Your task to perform on an android device: Search for Italian restaurants on Maps Image 0: 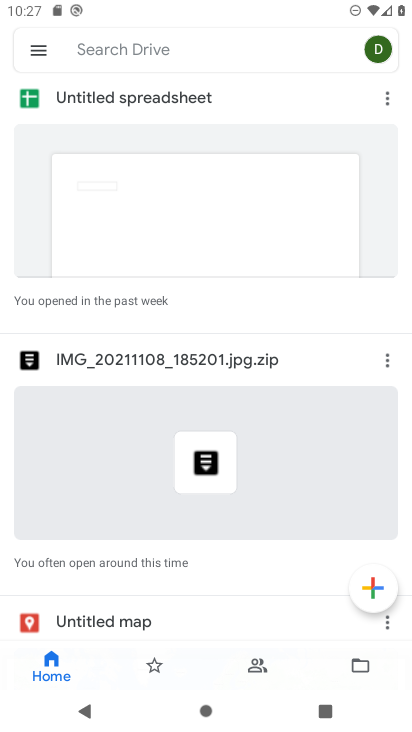
Step 0: press home button
Your task to perform on an android device: Search for Italian restaurants on Maps Image 1: 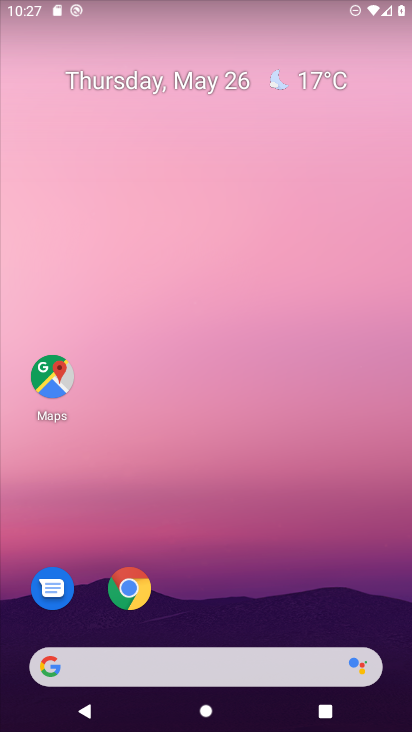
Step 1: click (49, 375)
Your task to perform on an android device: Search for Italian restaurants on Maps Image 2: 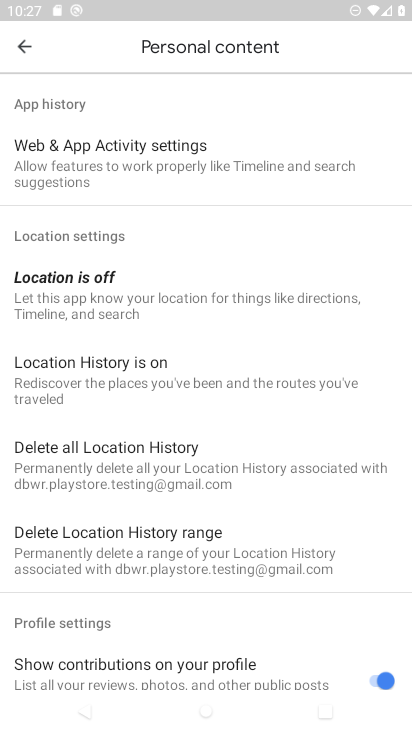
Step 2: press back button
Your task to perform on an android device: Search for Italian restaurants on Maps Image 3: 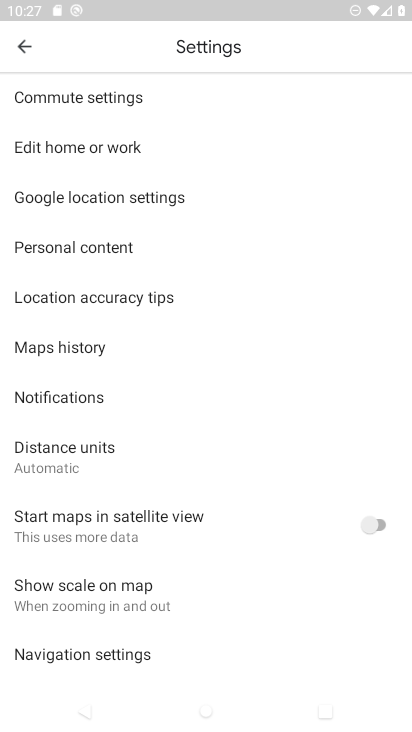
Step 3: press back button
Your task to perform on an android device: Search for Italian restaurants on Maps Image 4: 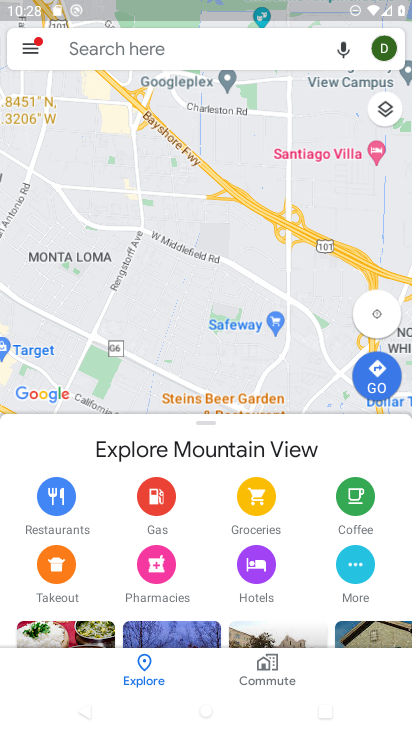
Step 4: click (166, 44)
Your task to perform on an android device: Search for Italian restaurants on Maps Image 5: 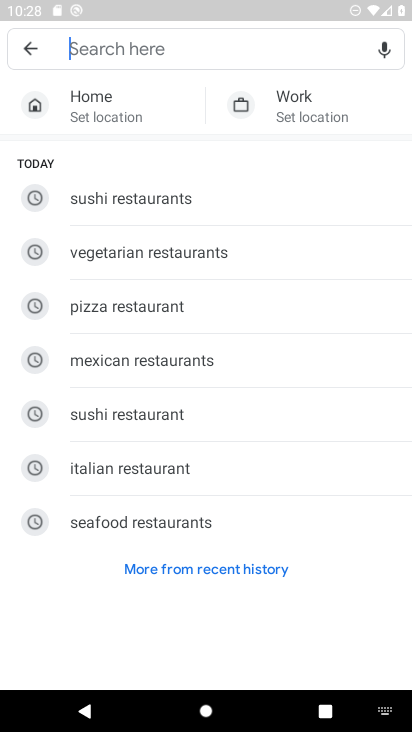
Step 5: type "italian restaurants"
Your task to perform on an android device: Search for Italian restaurants on Maps Image 6: 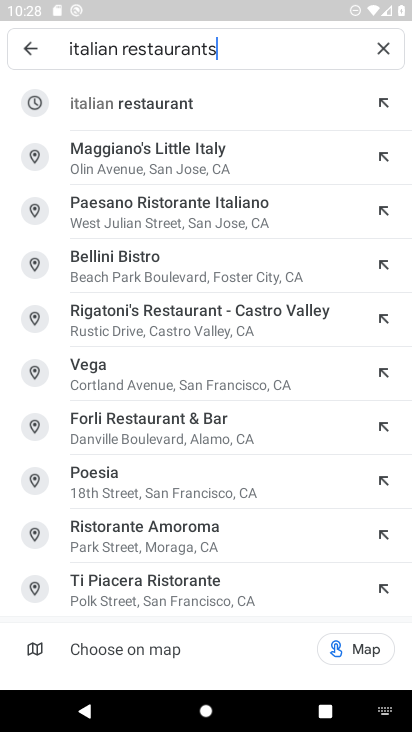
Step 6: click (115, 101)
Your task to perform on an android device: Search for Italian restaurants on Maps Image 7: 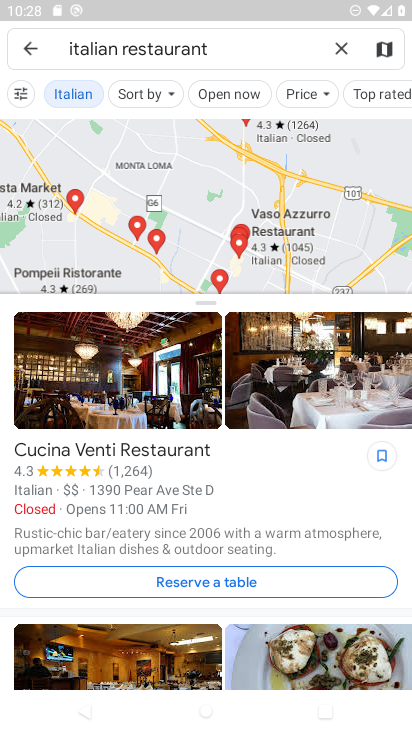
Step 7: task complete